Your task to perform on an android device: turn on the 24-hour format for clock Image 0: 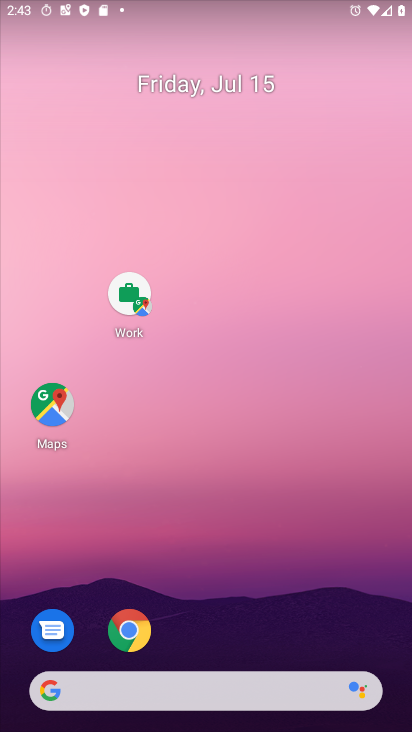
Step 0: drag from (218, 618) to (216, 208)
Your task to perform on an android device: turn on the 24-hour format for clock Image 1: 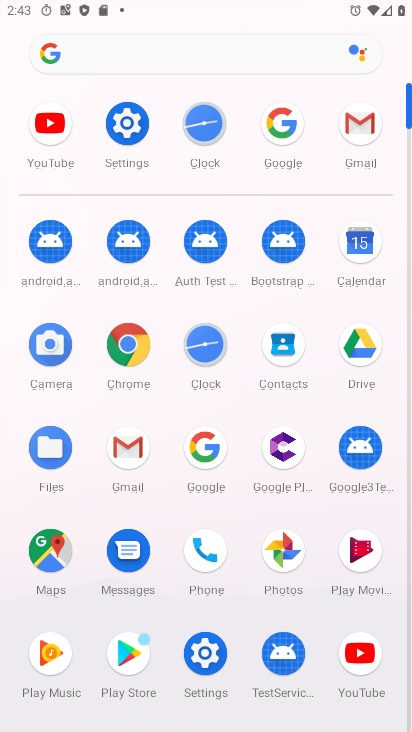
Step 1: click (197, 129)
Your task to perform on an android device: turn on the 24-hour format for clock Image 2: 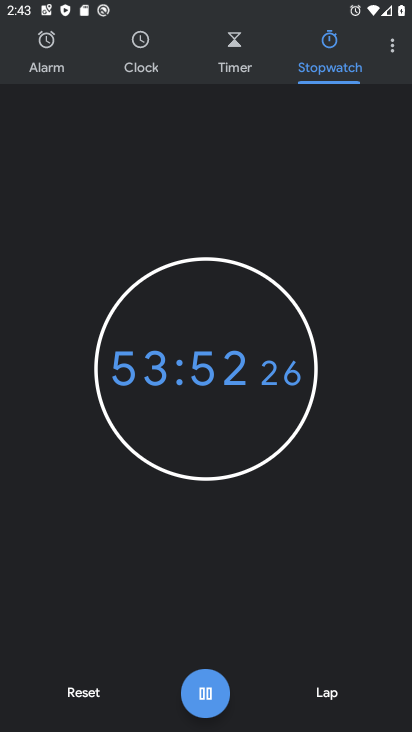
Step 2: click (388, 51)
Your task to perform on an android device: turn on the 24-hour format for clock Image 3: 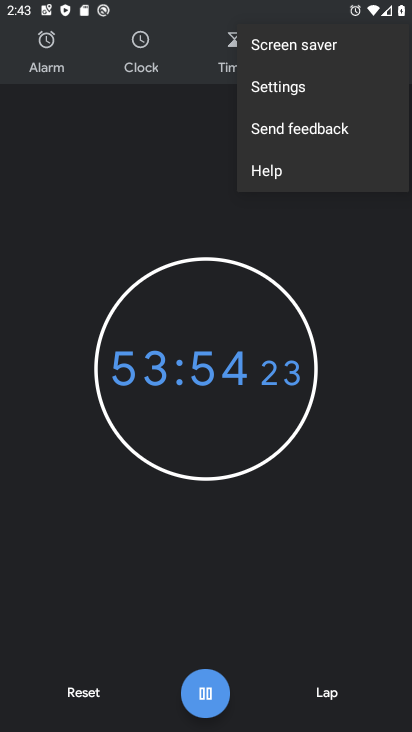
Step 3: click (319, 97)
Your task to perform on an android device: turn on the 24-hour format for clock Image 4: 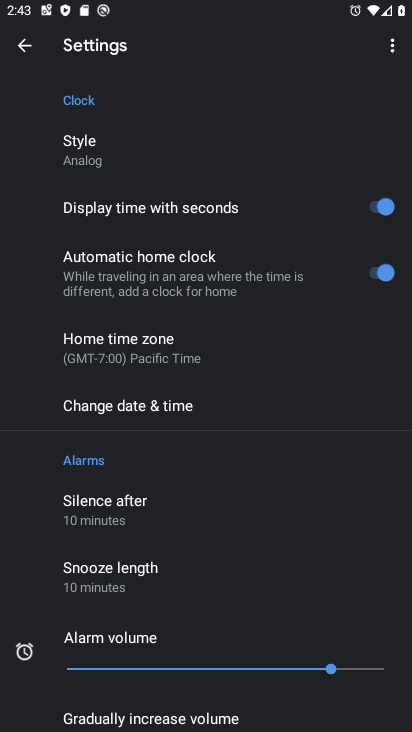
Step 4: click (154, 418)
Your task to perform on an android device: turn on the 24-hour format for clock Image 5: 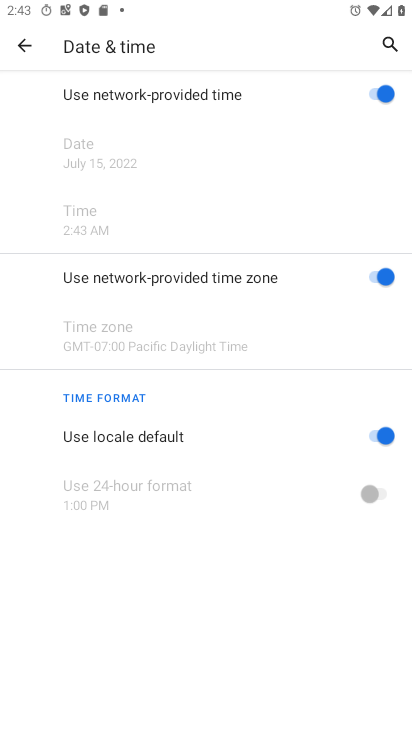
Step 5: click (374, 484)
Your task to perform on an android device: turn on the 24-hour format for clock Image 6: 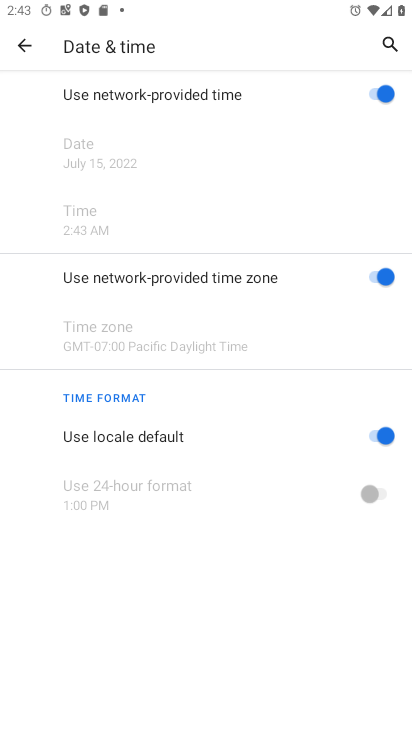
Step 6: click (367, 428)
Your task to perform on an android device: turn on the 24-hour format for clock Image 7: 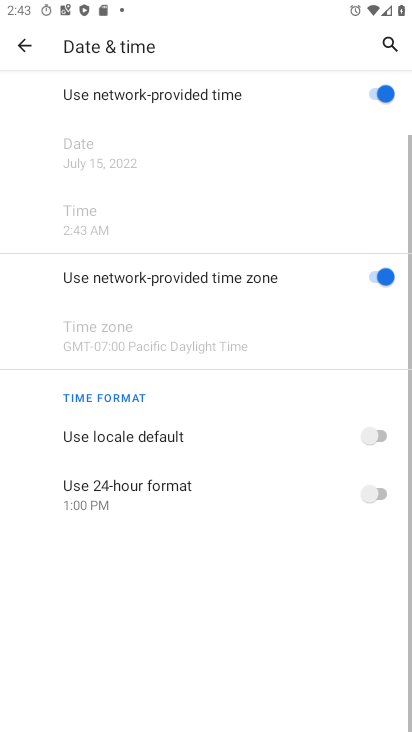
Step 7: click (382, 491)
Your task to perform on an android device: turn on the 24-hour format for clock Image 8: 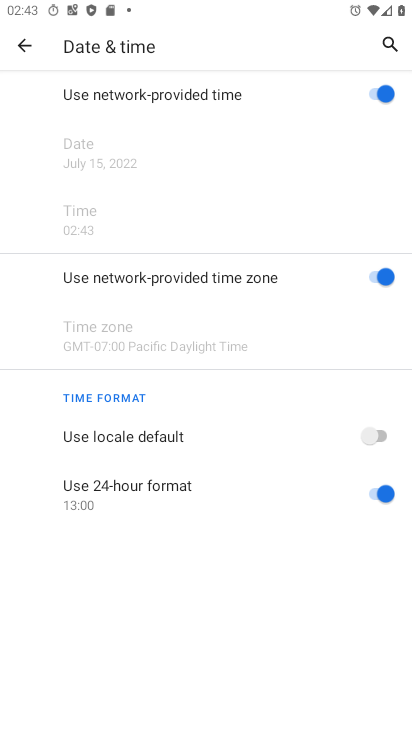
Step 8: task complete